Your task to perform on an android device: Go to privacy settings Image 0: 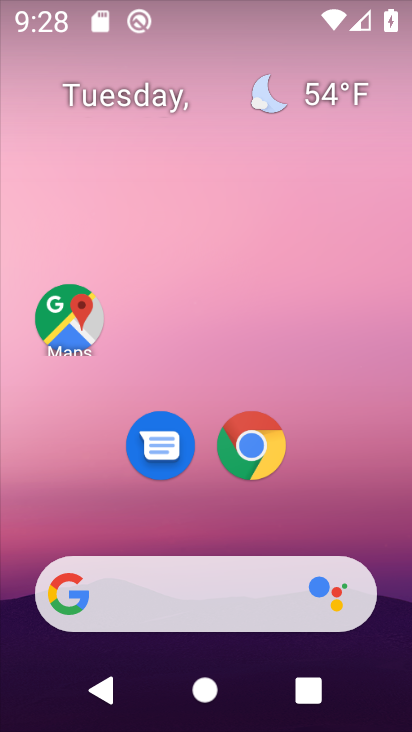
Step 0: drag from (399, 412) to (384, 148)
Your task to perform on an android device: Go to privacy settings Image 1: 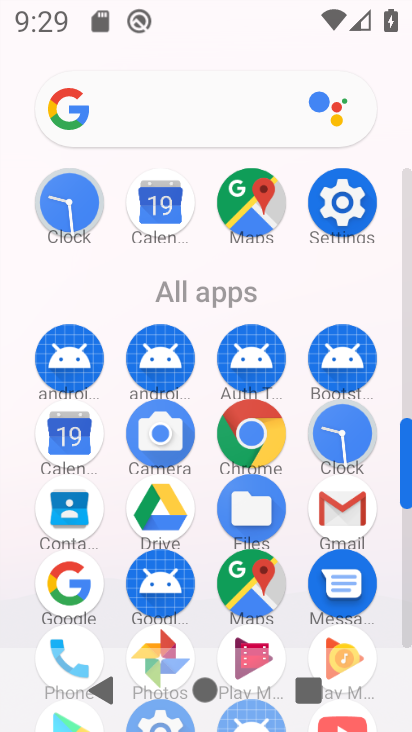
Step 1: click (342, 205)
Your task to perform on an android device: Go to privacy settings Image 2: 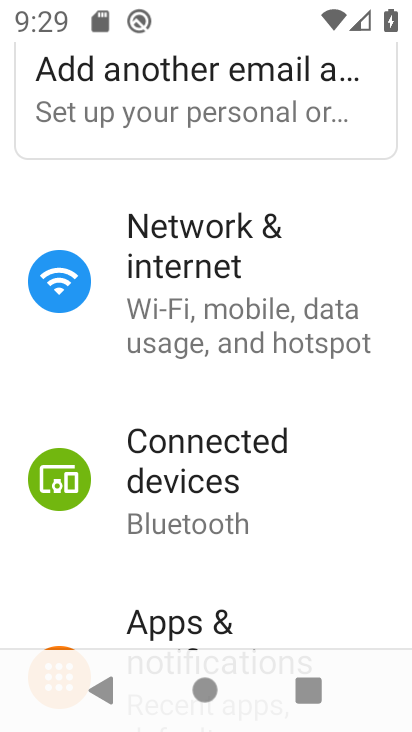
Step 2: drag from (384, 354) to (387, 261)
Your task to perform on an android device: Go to privacy settings Image 3: 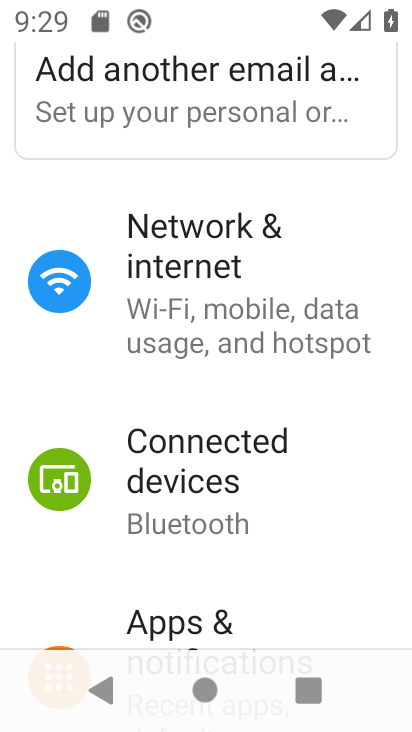
Step 3: drag from (338, 588) to (345, 317)
Your task to perform on an android device: Go to privacy settings Image 4: 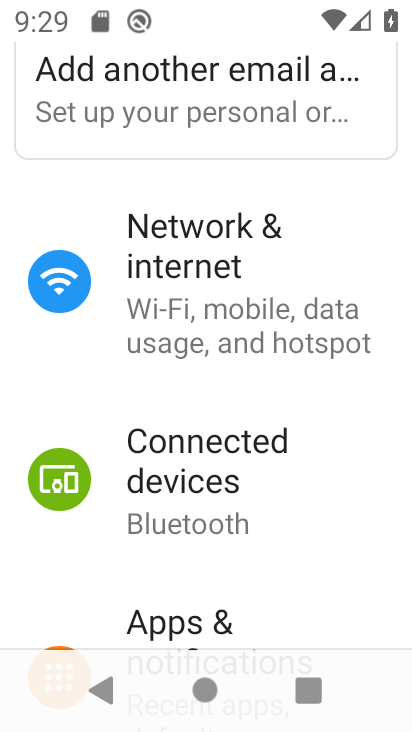
Step 4: drag from (341, 602) to (351, 291)
Your task to perform on an android device: Go to privacy settings Image 5: 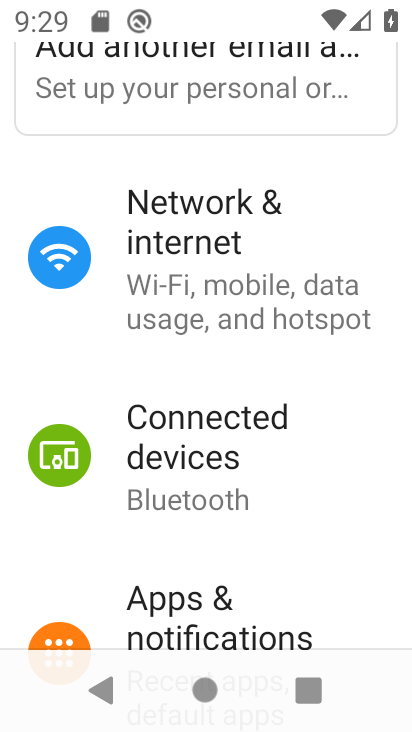
Step 5: press home button
Your task to perform on an android device: Go to privacy settings Image 6: 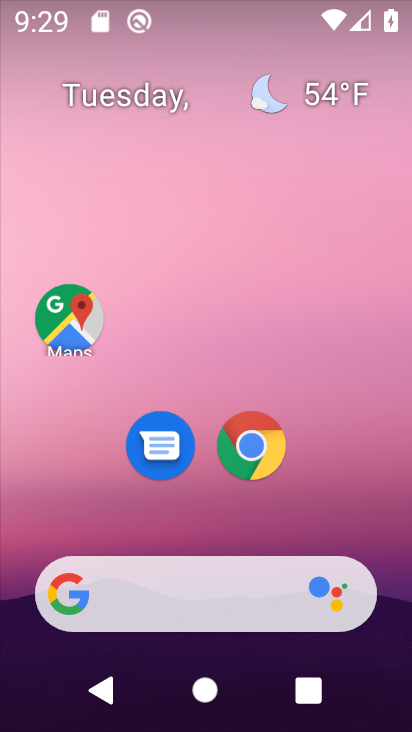
Step 6: drag from (371, 238) to (357, 78)
Your task to perform on an android device: Go to privacy settings Image 7: 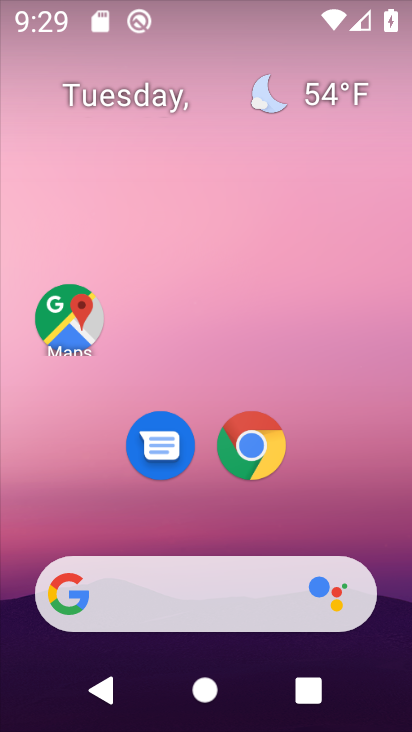
Step 7: drag from (385, 570) to (366, 26)
Your task to perform on an android device: Go to privacy settings Image 8: 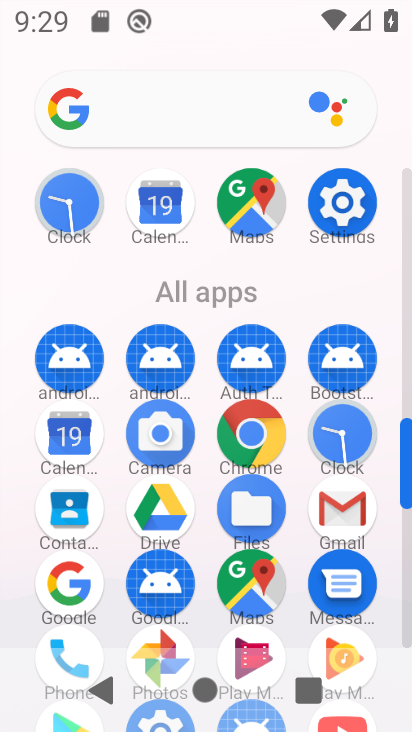
Step 8: click (250, 433)
Your task to perform on an android device: Go to privacy settings Image 9: 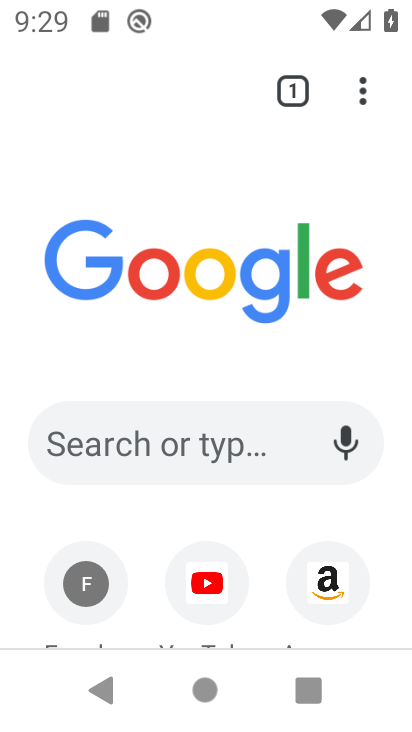
Step 9: click (360, 95)
Your task to perform on an android device: Go to privacy settings Image 10: 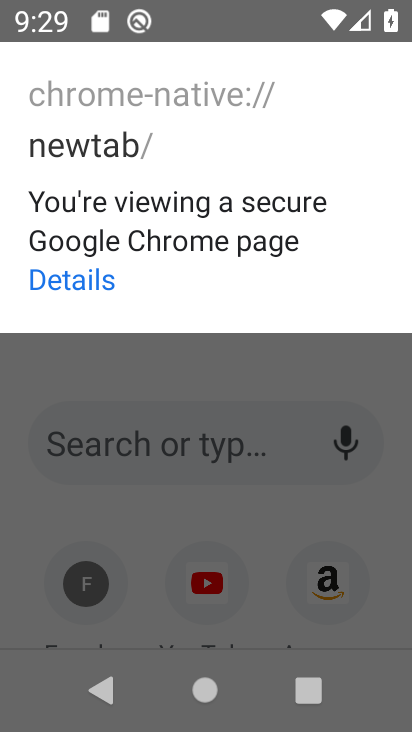
Step 10: click (211, 355)
Your task to perform on an android device: Go to privacy settings Image 11: 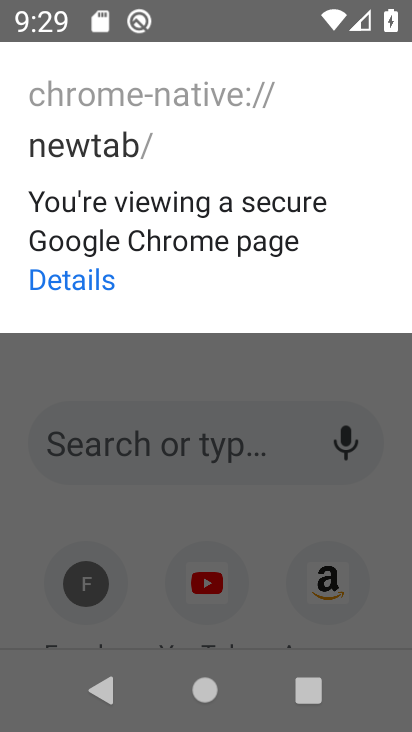
Step 11: click (83, 277)
Your task to perform on an android device: Go to privacy settings Image 12: 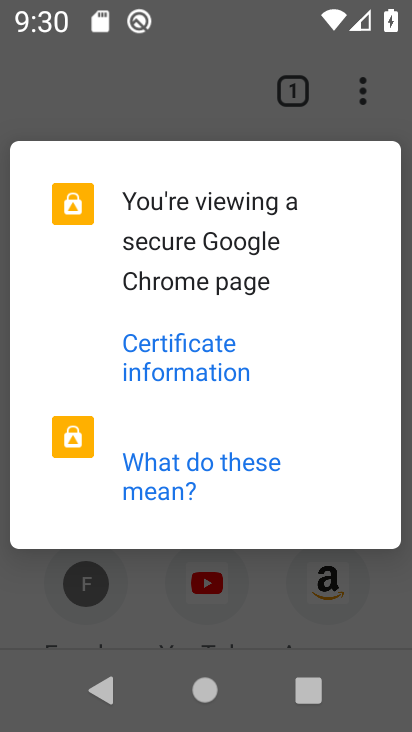
Step 12: press back button
Your task to perform on an android device: Go to privacy settings Image 13: 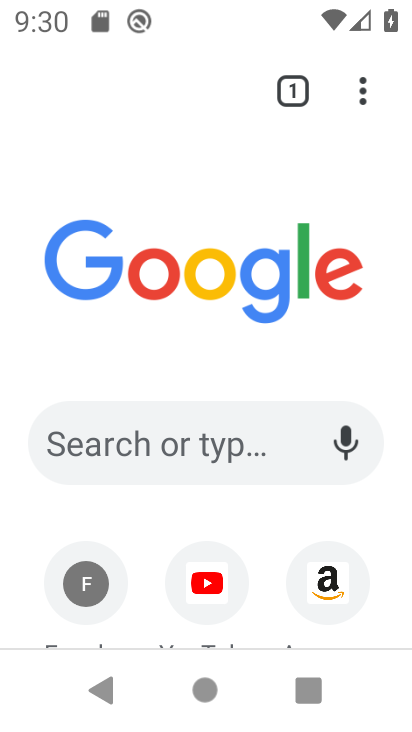
Step 13: click (356, 77)
Your task to perform on an android device: Go to privacy settings Image 14: 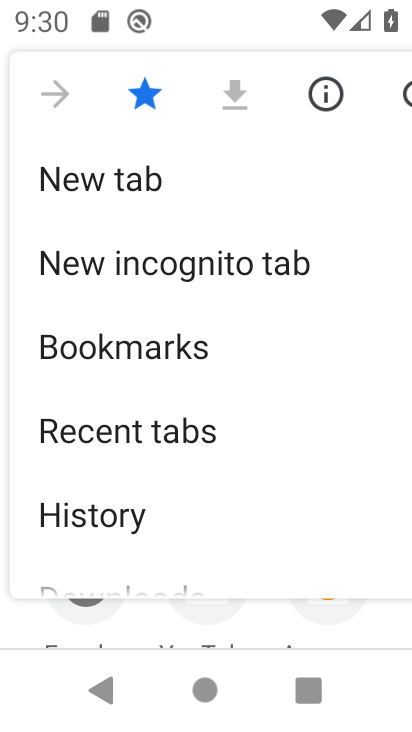
Step 14: drag from (295, 473) to (295, 227)
Your task to perform on an android device: Go to privacy settings Image 15: 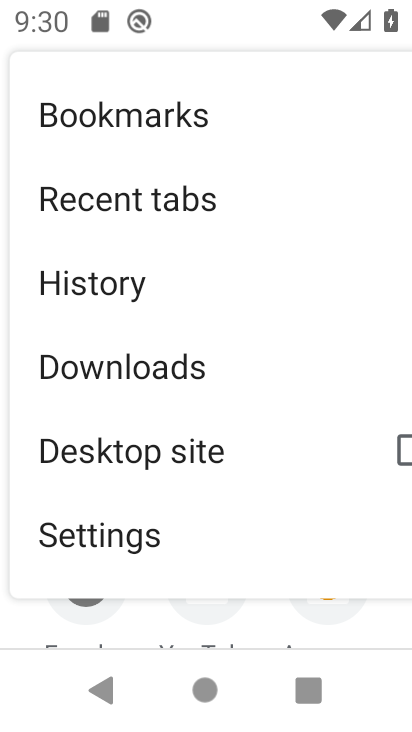
Step 15: click (130, 534)
Your task to perform on an android device: Go to privacy settings Image 16: 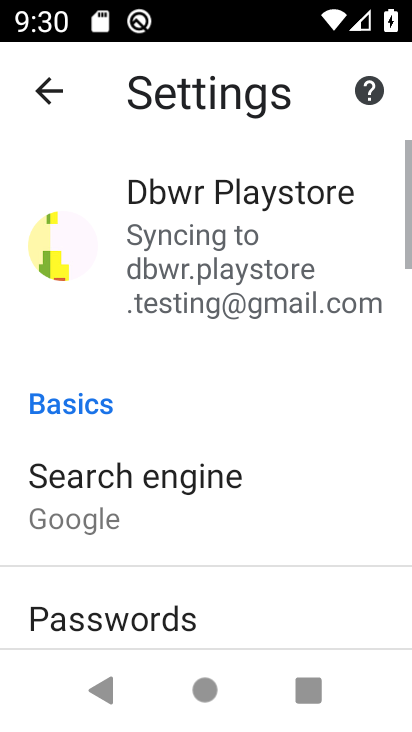
Step 16: drag from (280, 321) to (273, 226)
Your task to perform on an android device: Go to privacy settings Image 17: 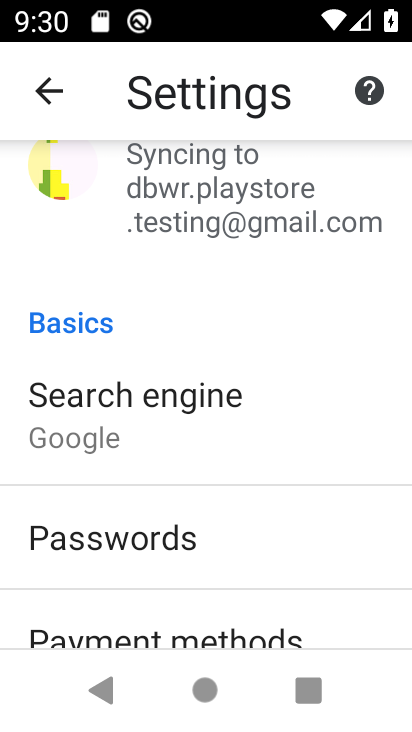
Step 17: drag from (243, 623) to (272, 321)
Your task to perform on an android device: Go to privacy settings Image 18: 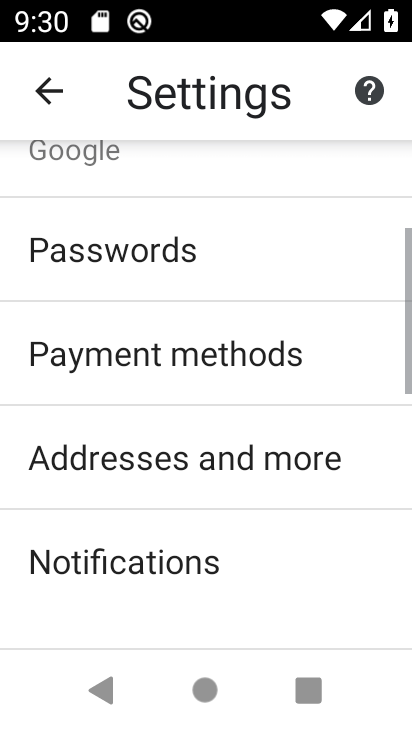
Step 18: drag from (218, 574) to (231, 275)
Your task to perform on an android device: Go to privacy settings Image 19: 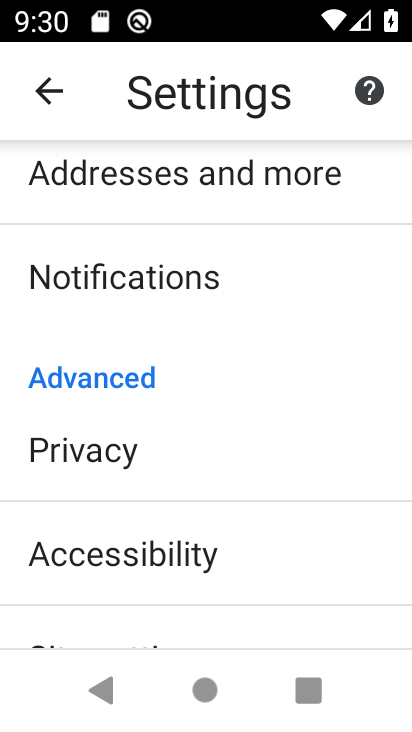
Step 19: click (103, 443)
Your task to perform on an android device: Go to privacy settings Image 20: 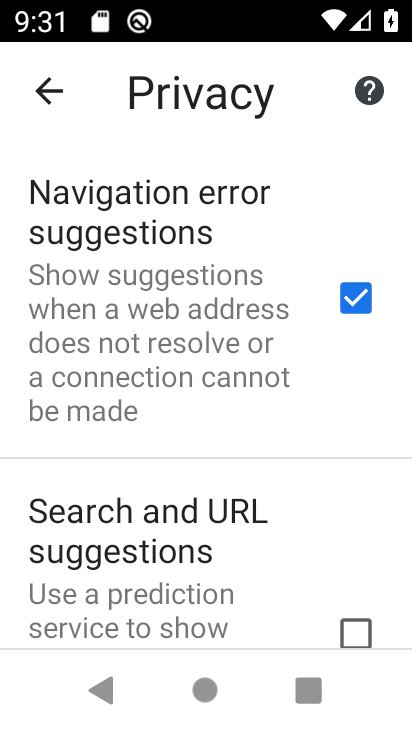
Step 20: task complete